Your task to perform on an android device: Turn off the flashlight Image 0: 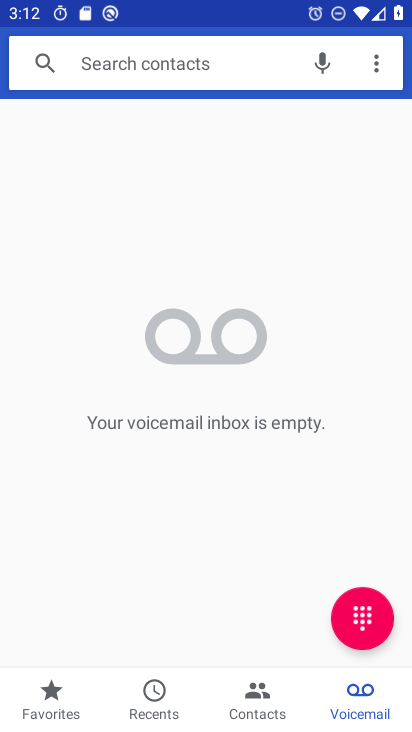
Step 0: press home button
Your task to perform on an android device: Turn off the flashlight Image 1: 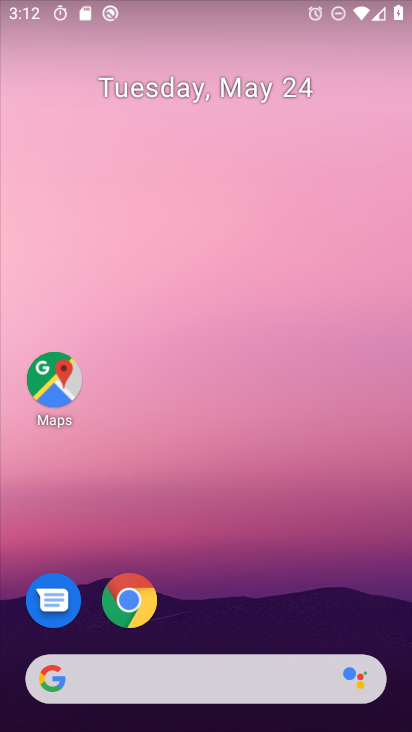
Step 1: drag from (222, 625) to (263, 92)
Your task to perform on an android device: Turn off the flashlight Image 2: 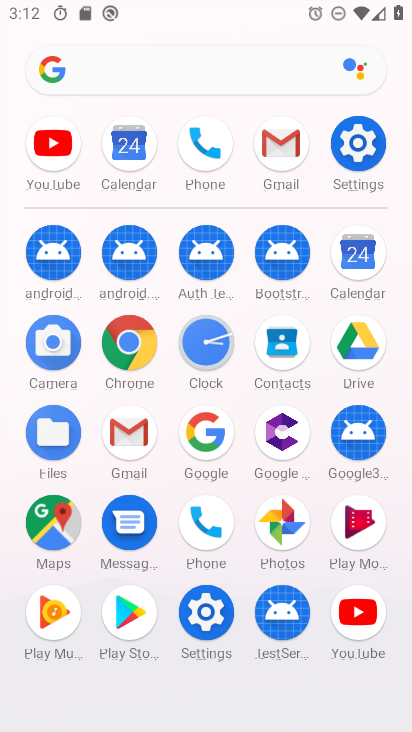
Step 2: click (356, 144)
Your task to perform on an android device: Turn off the flashlight Image 3: 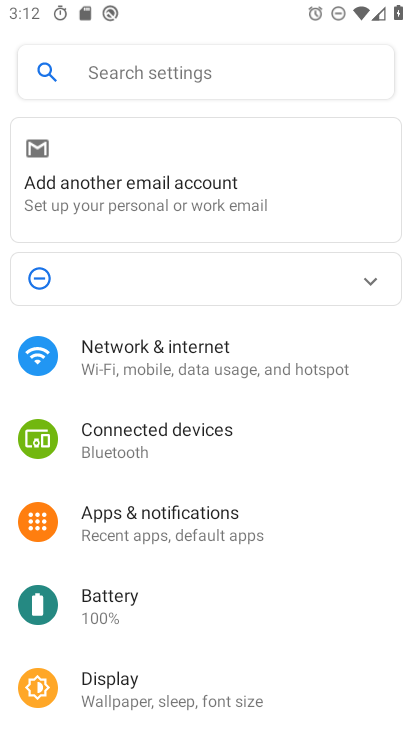
Step 3: drag from (187, 542) to (265, 214)
Your task to perform on an android device: Turn off the flashlight Image 4: 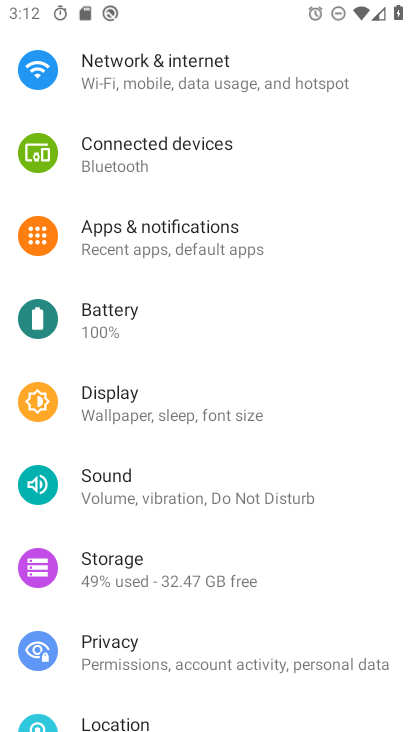
Step 4: click (135, 407)
Your task to perform on an android device: Turn off the flashlight Image 5: 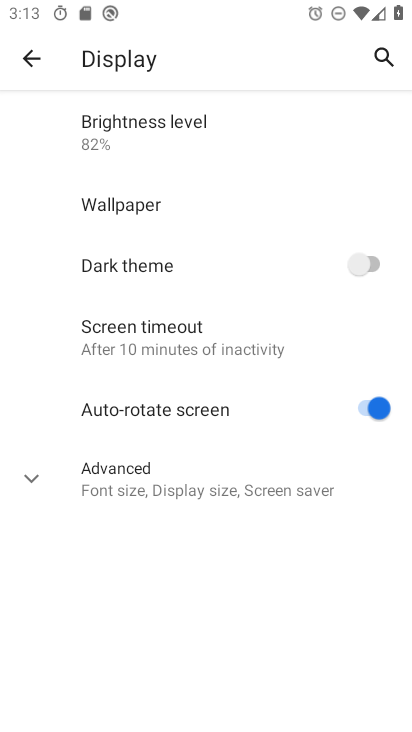
Step 5: task complete